Your task to perform on an android device: Show me recent news Image 0: 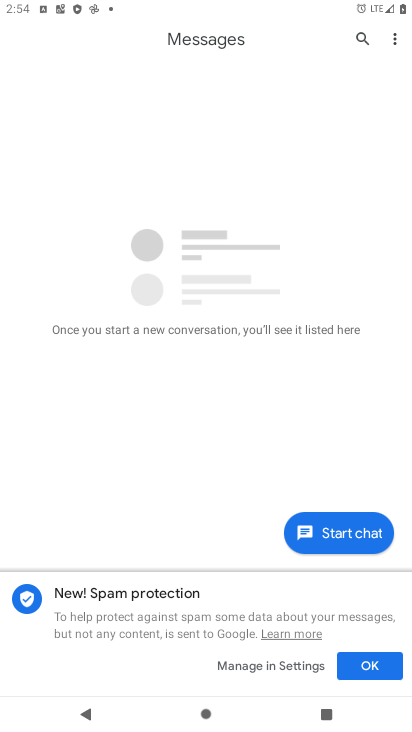
Step 0: press home button
Your task to perform on an android device: Show me recent news Image 1: 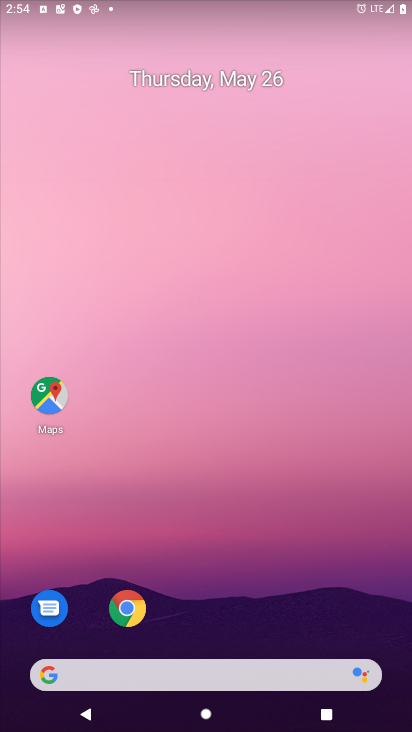
Step 1: task complete